Your task to perform on an android device: Open Maps and search for coffee Image 0: 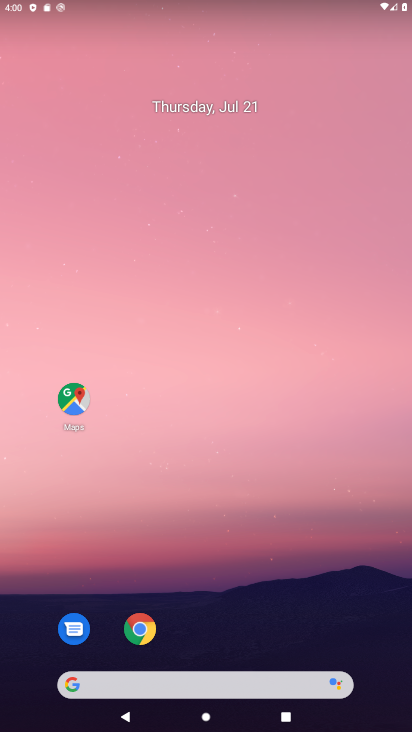
Step 0: click (68, 422)
Your task to perform on an android device: Open Maps and search for coffee Image 1: 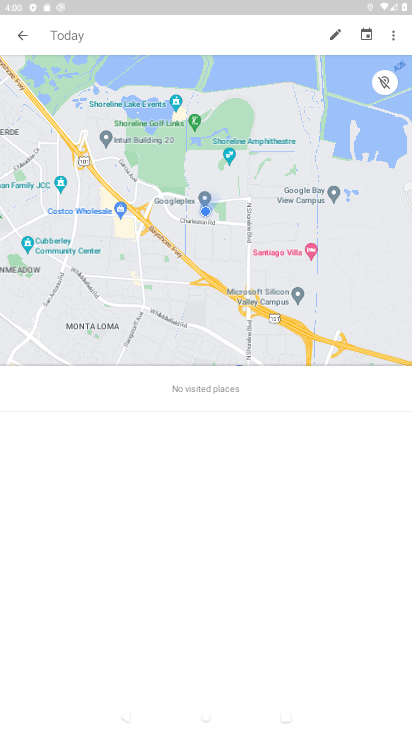
Step 1: click (26, 40)
Your task to perform on an android device: Open Maps and search for coffee Image 2: 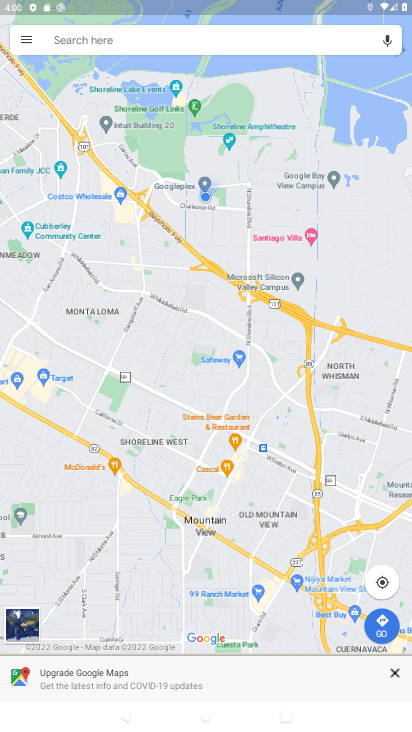
Step 2: click (131, 40)
Your task to perform on an android device: Open Maps and search for coffee Image 3: 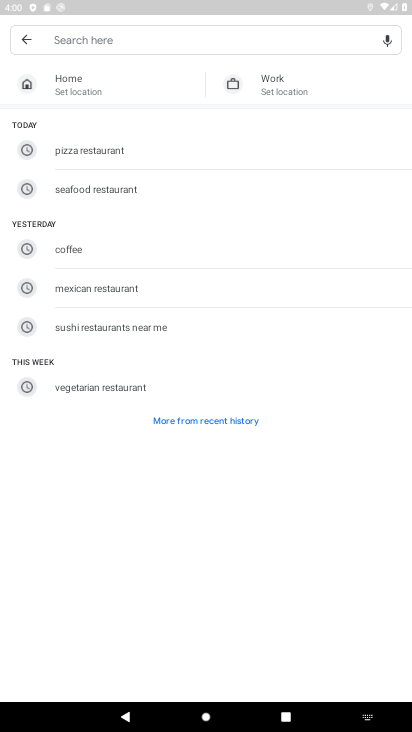
Step 3: click (124, 252)
Your task to perform on an android device: Open Maps and search for coffee Image 4: 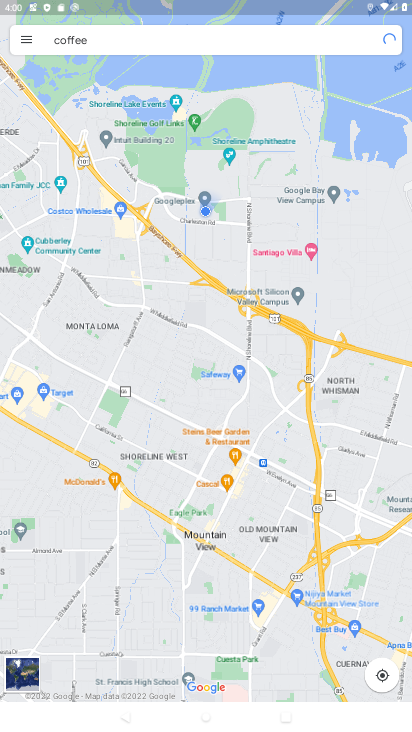
Step 4: task complete